Your task to perform on an android device: Clear all items from cart on ebay.com. Search for razer blade on ebay.com, select the first entry, add it to the cart, then select checkout. Image 0: 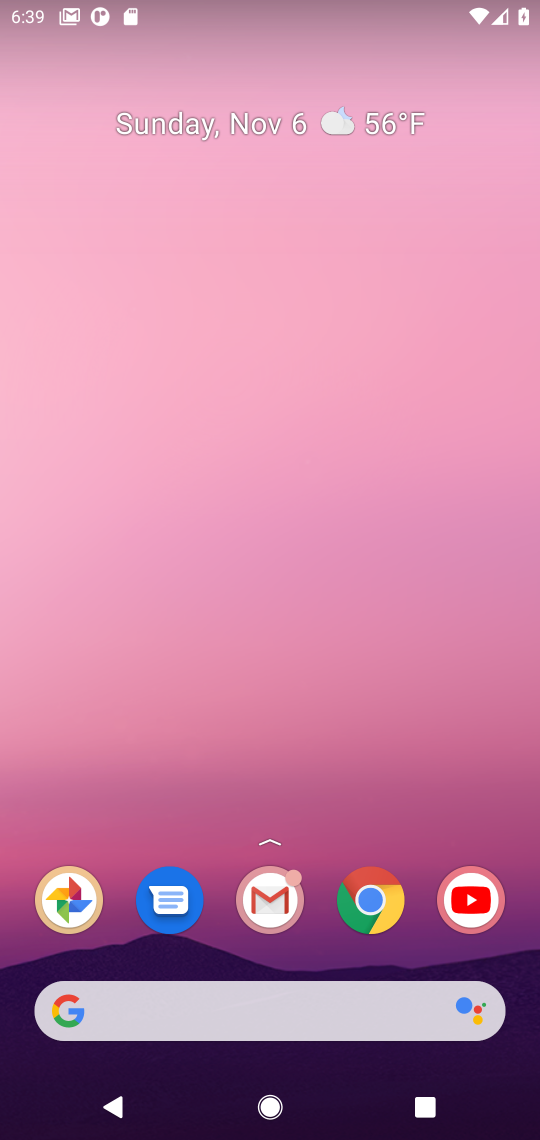
Step 0: drag from (324, 962) to (293, 365)
Your task to perform on an android device: Clear all items from cart on ebay.com. Search for razer blade on ebay.com, select the first entry, add it to the cart, then select checkout. Image 1: 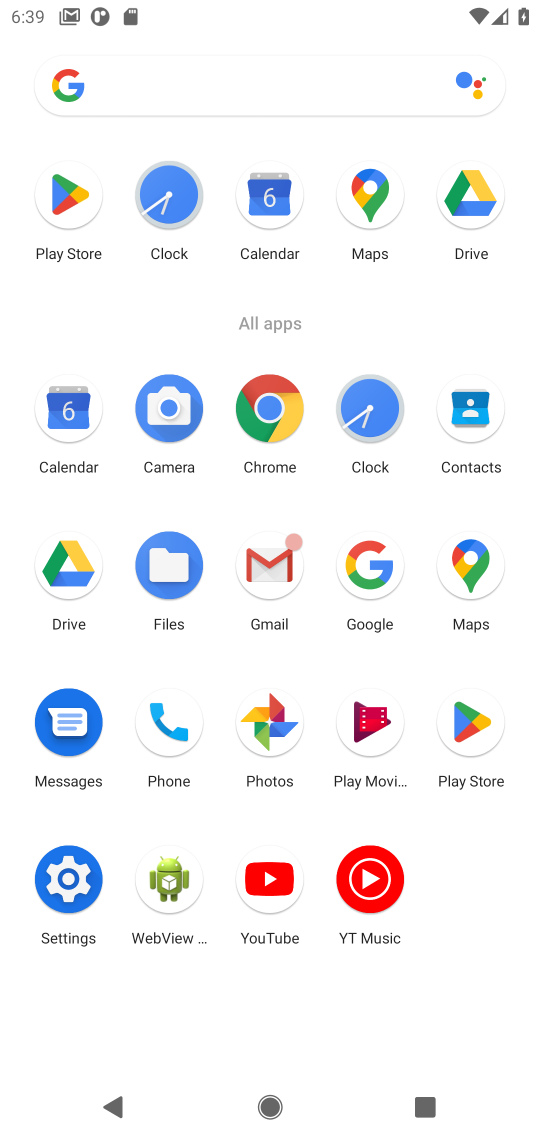
Step 1: click (269, 407)
Your task to perform on an android device: Clear all items from cart on ebay.com. Search for razer blade on ebay.com, select the first entry, add it to the cart, then select checkout. Image 2: 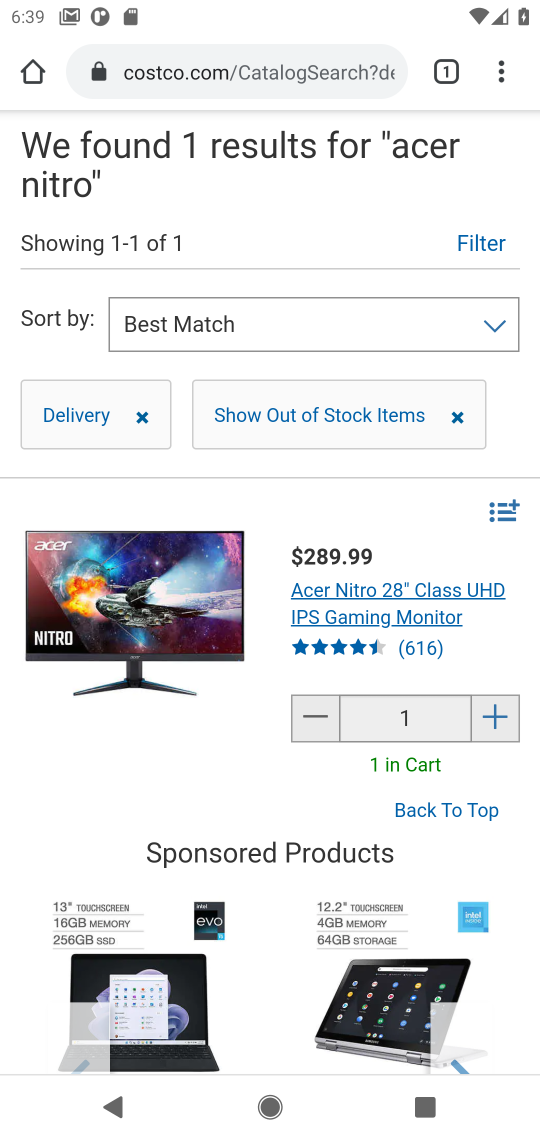
Step 2: click (183, 73)
Your task to perform on an android device: Clear all items from cart on ebay.com. Search for razer blade on ebay.com, select the first entry, add it to the cart, then select checkout. Image 3: 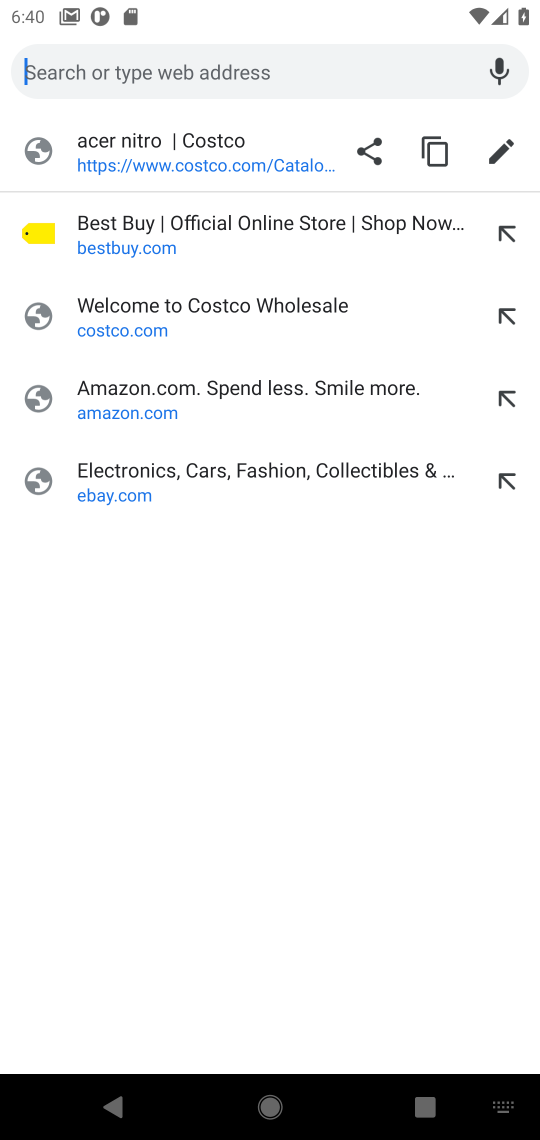
Step 3: type "ebay.com"
Your task to perform on an android device: Clear all items from cart on ebay.com. Search for razer blade on ebay.com, select the first entry, add it to the cart, then select checkout. Image 4: 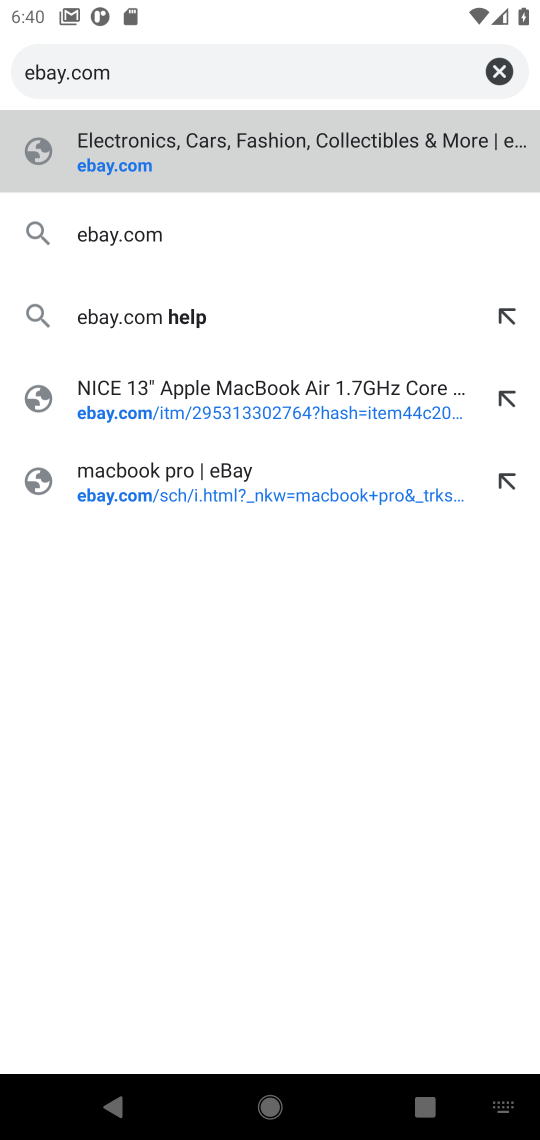
Step 4: press enter
Your task to perform on an android device: Clear all items from cart on ebay.com. Search for razer blade on ebay.com, select the first entry, add it to the cart, then select checkout. Image 5: 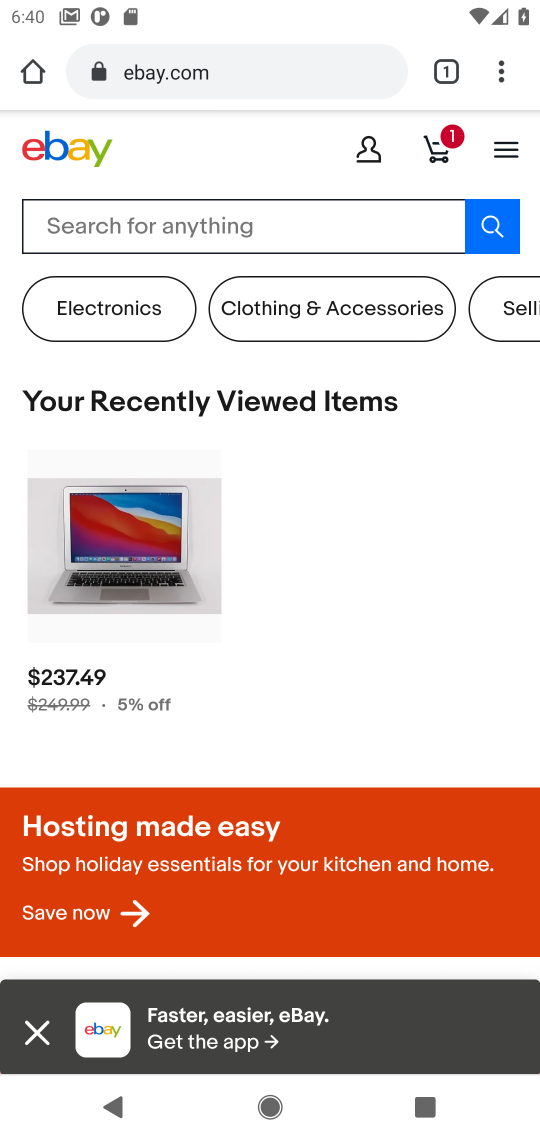
Step 5: click (440, 152)
Your task to perform on an android device: Clear all items from cart on ebay.com. Search for razer blade on ebay.com, select the first entry, add it to the cart, then select checkout. Image 6: 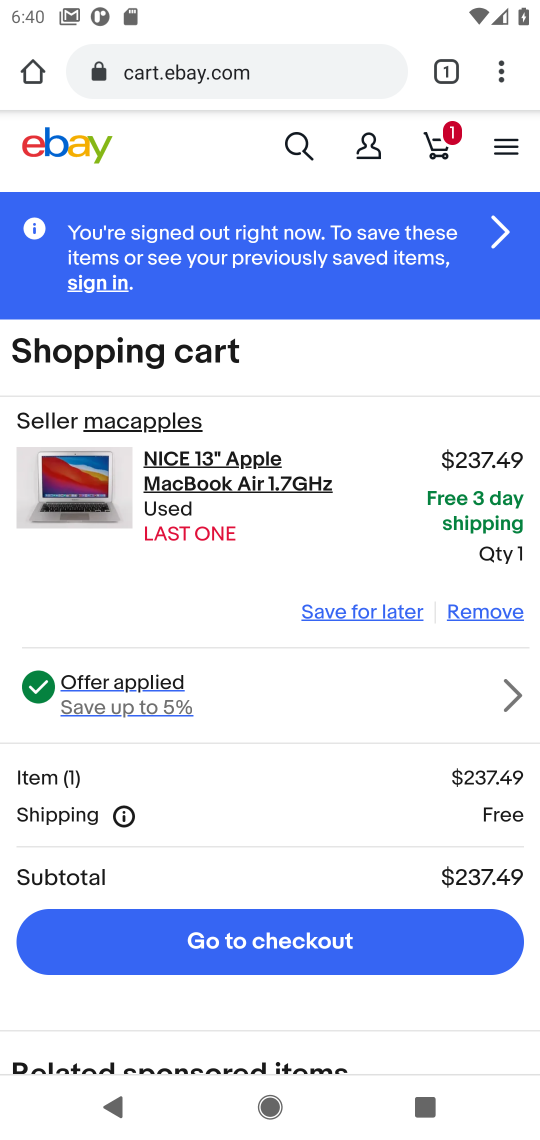
Step 6: click (485, 609)
Your task to perform on an android device: Clear all items from cart on ebay.com. Search for razer blade on ebay.com, select the first entry, add it to the cart, then select checkout. Image 7: 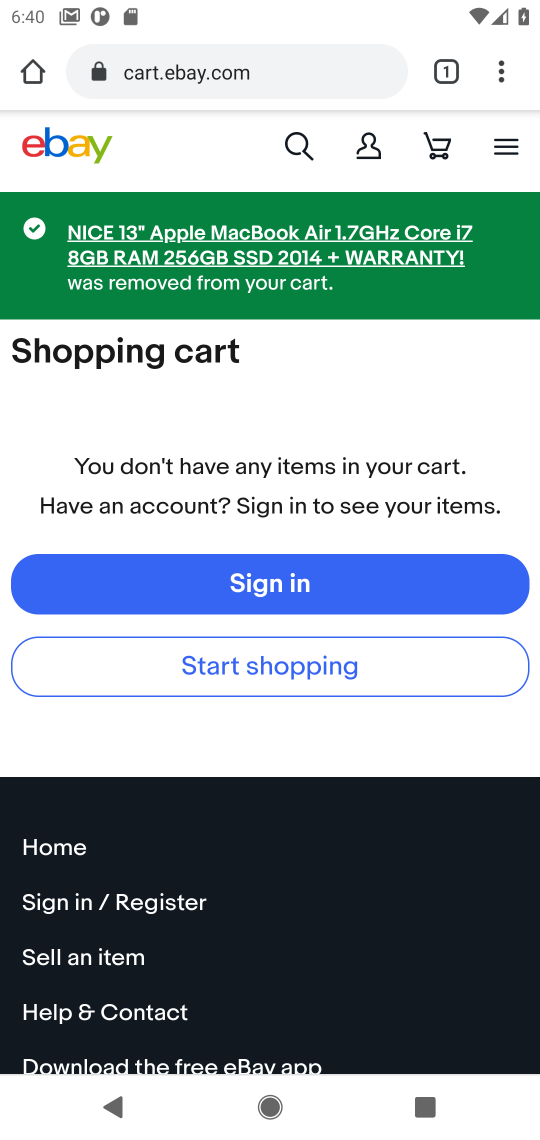
Step 7: click (310, 139)
Your task to perform on an android device: Clear all items from cart on ebay.com. Search for razer blade on ebay.com, select the first entry, add it to the cart, then select checkout. Image 8: 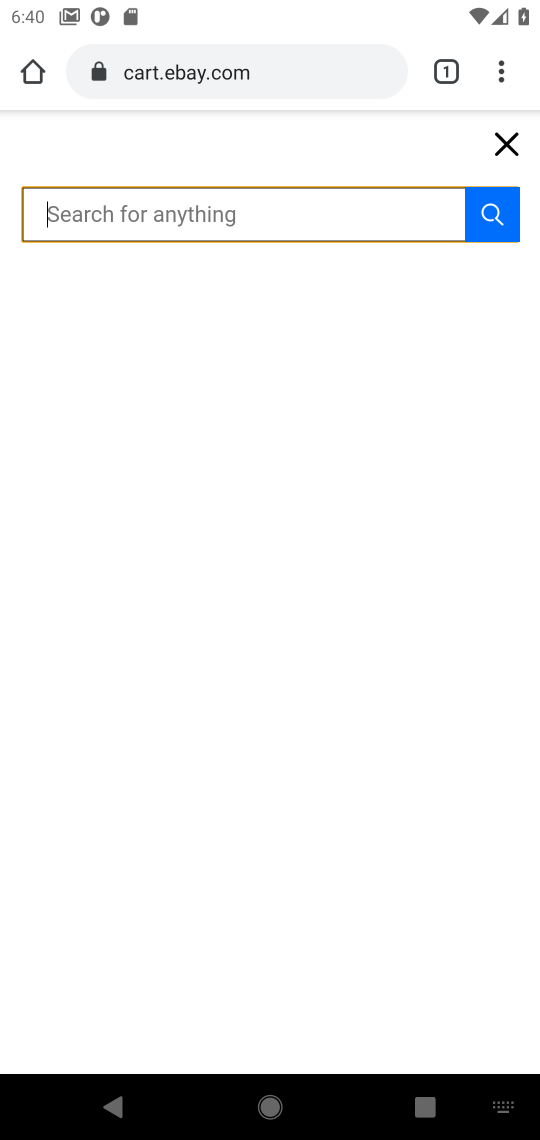
Step 8: type "razer blade"
Your task to perform on an android device: Clear all items from cart on ebay.com. Search for razer blade on ebay.com, select the first entry, add it to the cart, then select checkout. Image 9: 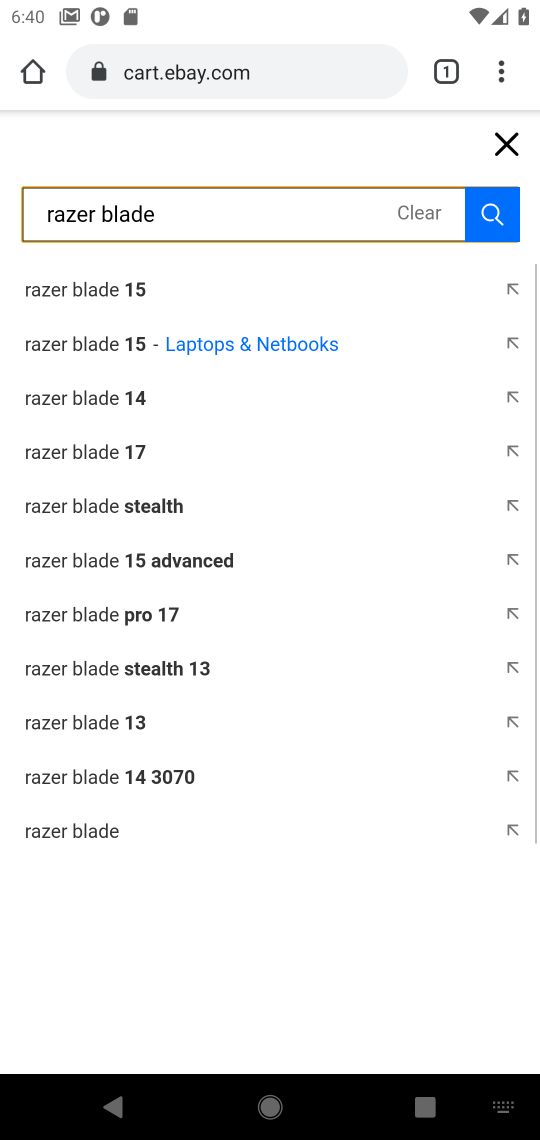
Step 9: press enter
Your task to perform on an android device: Clear all items from cart on ebay.com. Search for razer blade on ebay.com, select the first entry, add it to the cart, then select checkout. Image 10: 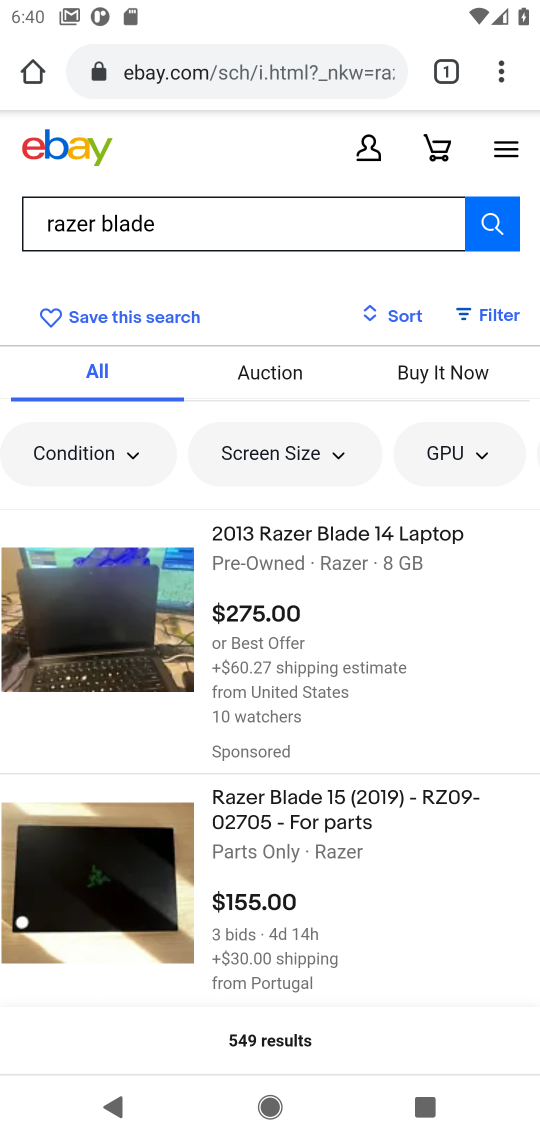
Step 10: click (101, 591)
Your task to perform on an android device: Clear all items from cart on ebay.com. Search for razer blade on ebay.com, select the first entry, add it to the cart, then select checkout. Image 11: 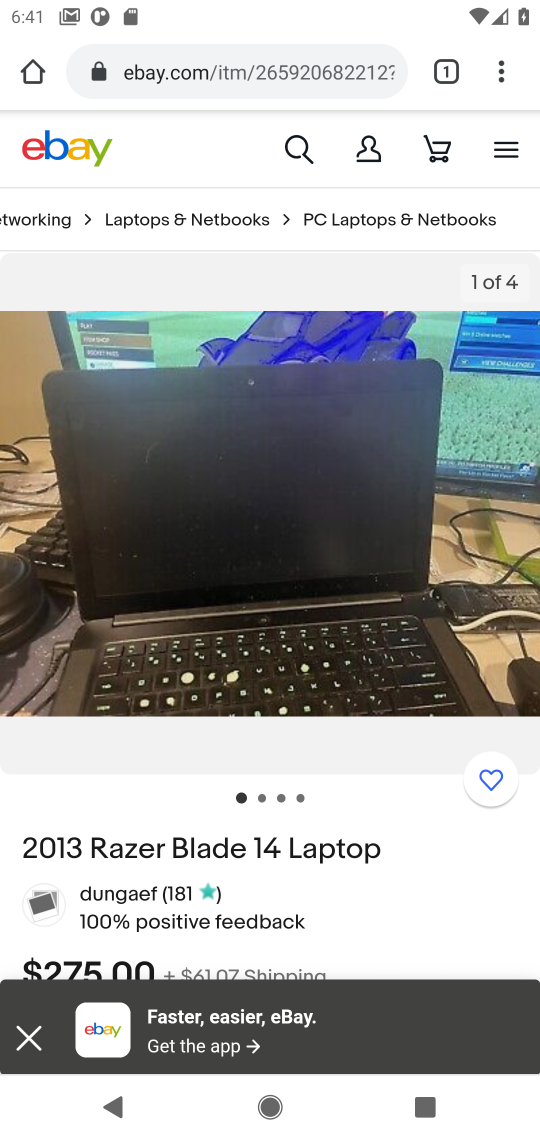
Step 11: drag from (383, 744) to (306, 52)
Your task to perform on an android device: Clear all items from cart on ebay.com. Search for razer blade on ebay.com, select the first entry, add it to the cart, then select checkout. Image 12: 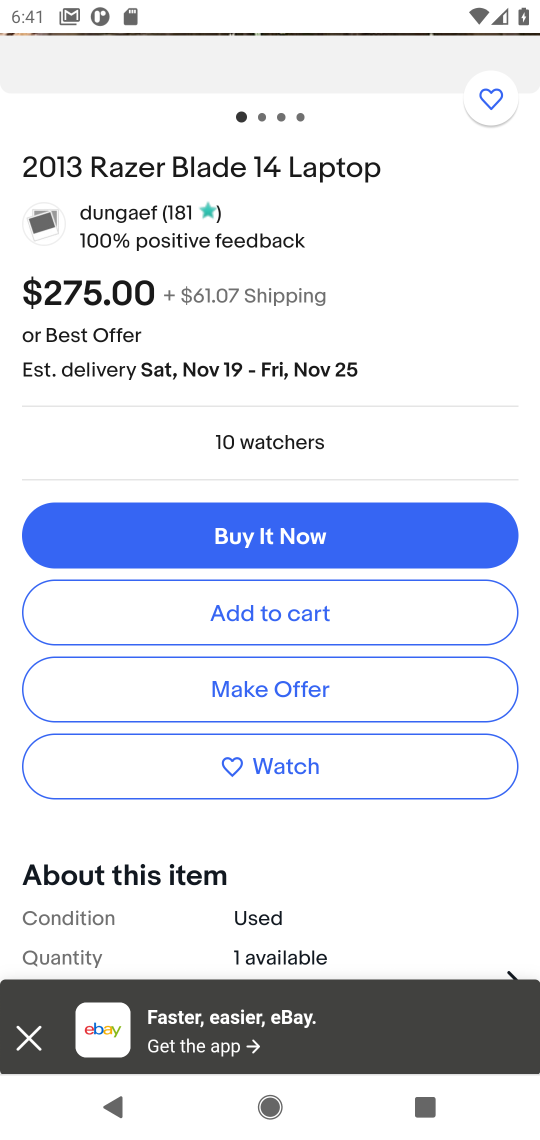
Step 12: click (249, 605)
Your task to perform on an android device: Clear all items from cart on ebay.com. Search for razer blade on ebay.com, select the first entry, add it to the cart, then select checkout. Image 13: 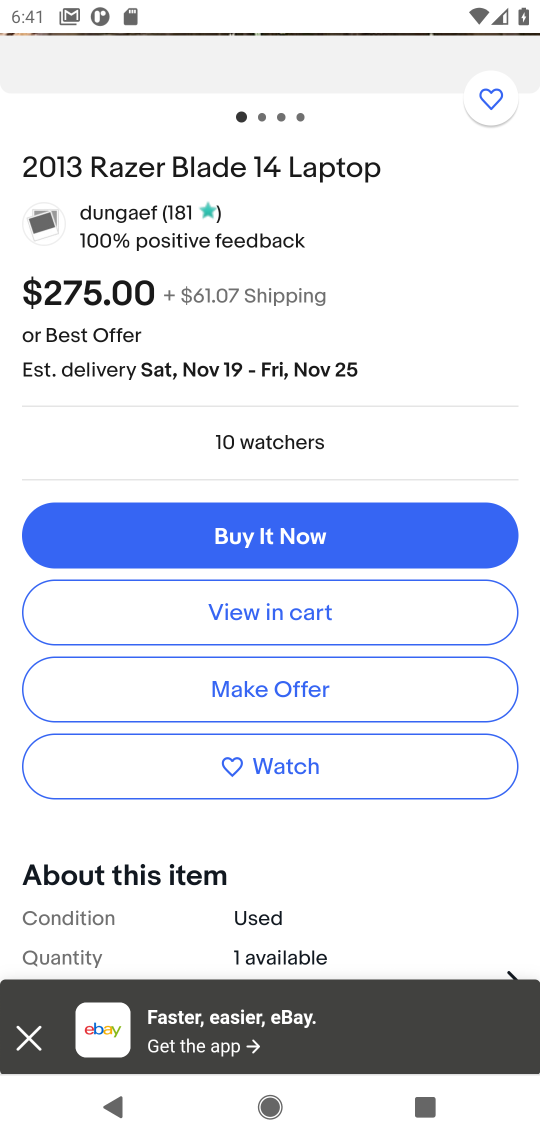
Step 13: click (249, 605)
Your task to perform on an android device: Clear all items from cart on ebay.com. Search for razer blade on ebay.com, select the first entry, add it to the cart, then select checkout. Image 14: 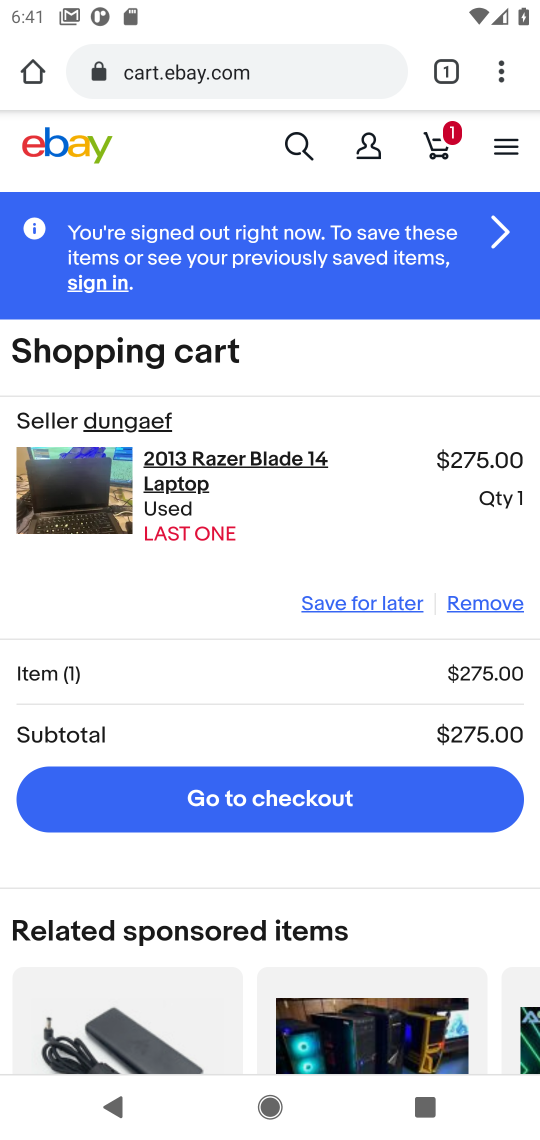
Step 14: click (204, 791)
Your task to perform on an android device: Clear all items from cart on ebay.com. Search for razer blade on ebay.com, select the first entry, add it to the cart, then select checkout. Image 15: 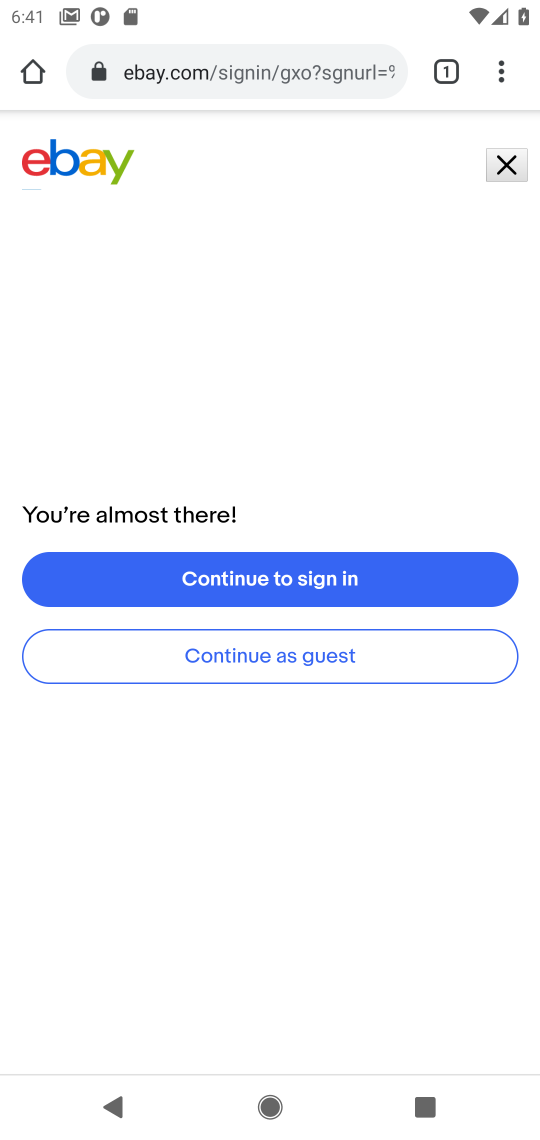
Step 15: task complete